Your task to perform on an android device: create a new album in the google photos Image 0: 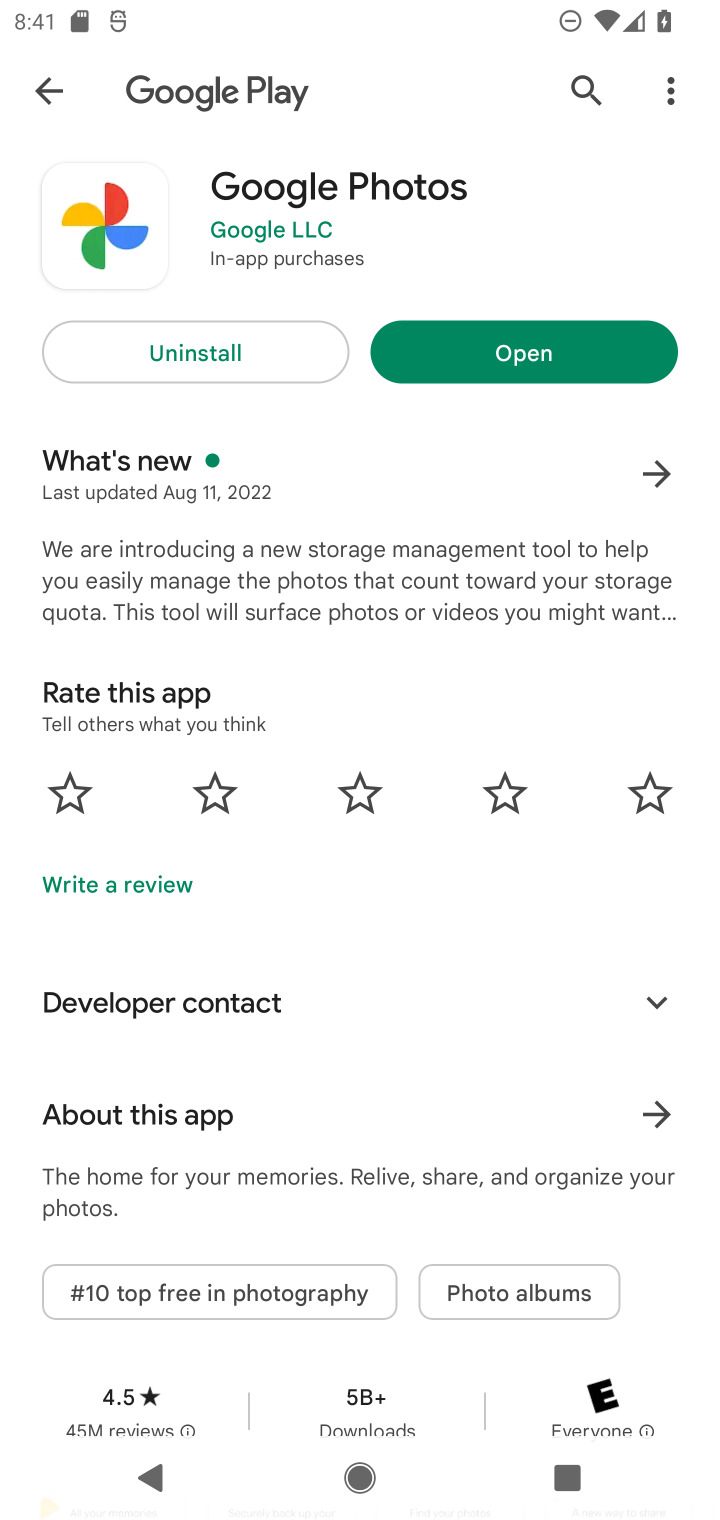
Step 0: press home button
Your task to perform on an android device: create a new album in the google photos Image 1: 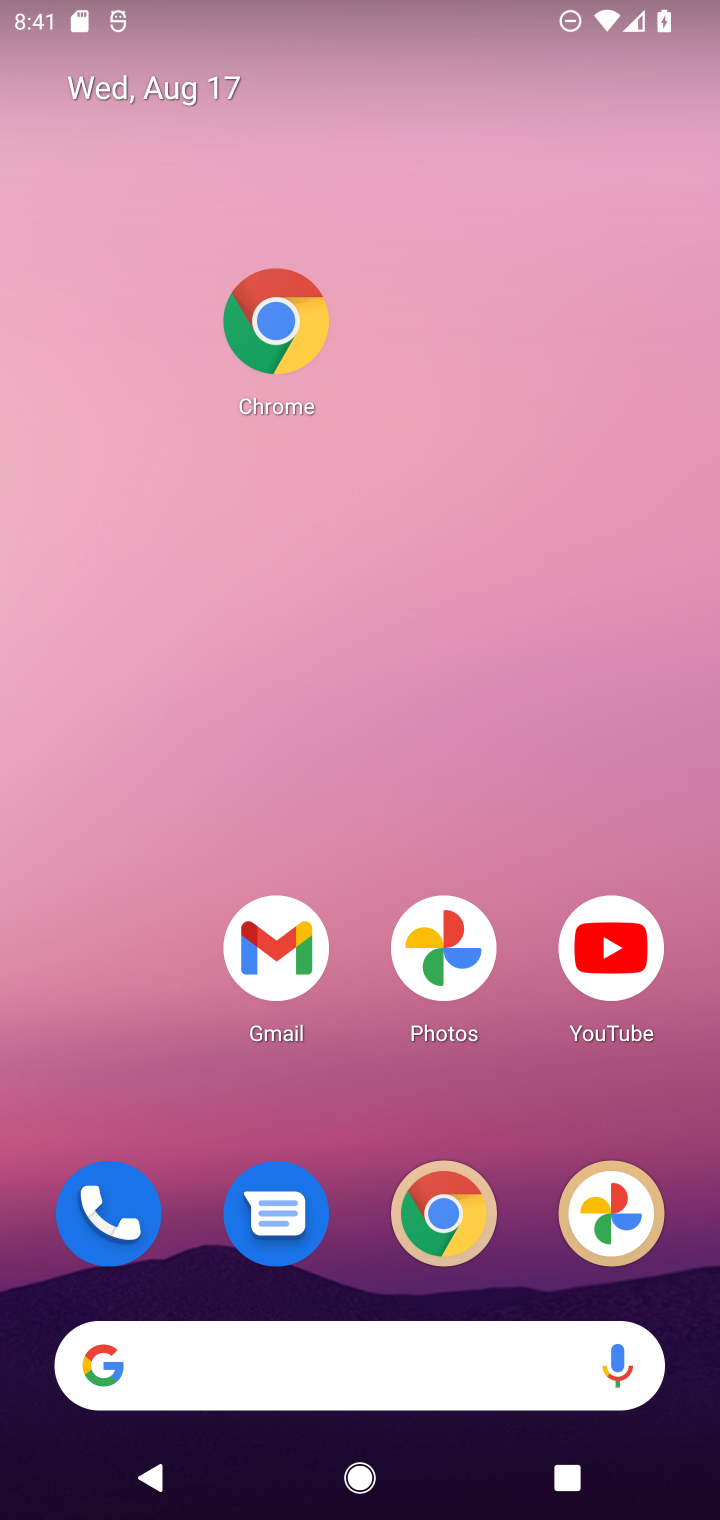
Step 1: click (601, 1208)
Your task to perform on an android device: create a new album in the google photos Image 2: 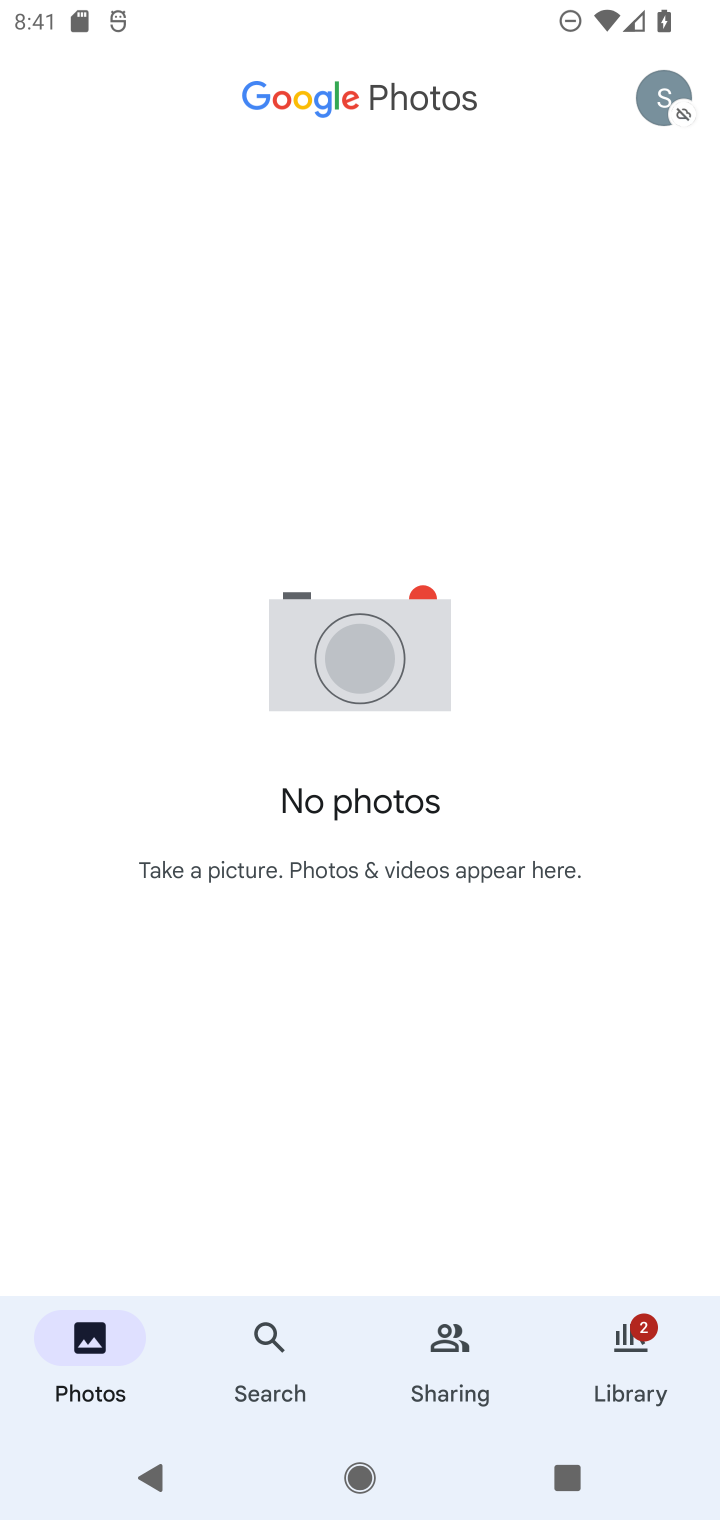
Step 2: click (610, 1321)
Your task to perform on an android device: create a new album in the google photos Image 3: 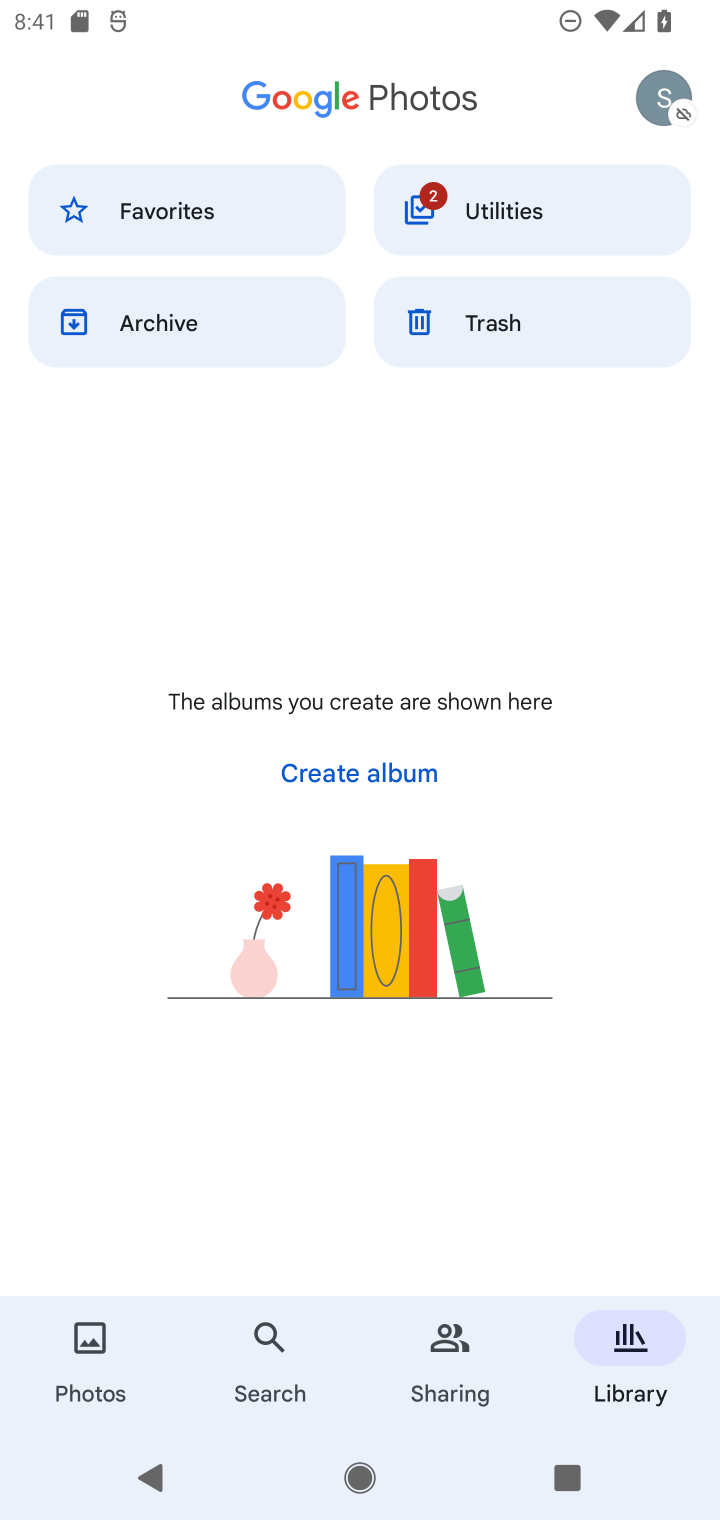
Step 3: click (466, 234)
Your task to perform on an android device: create a new album in the google photos Image 4: 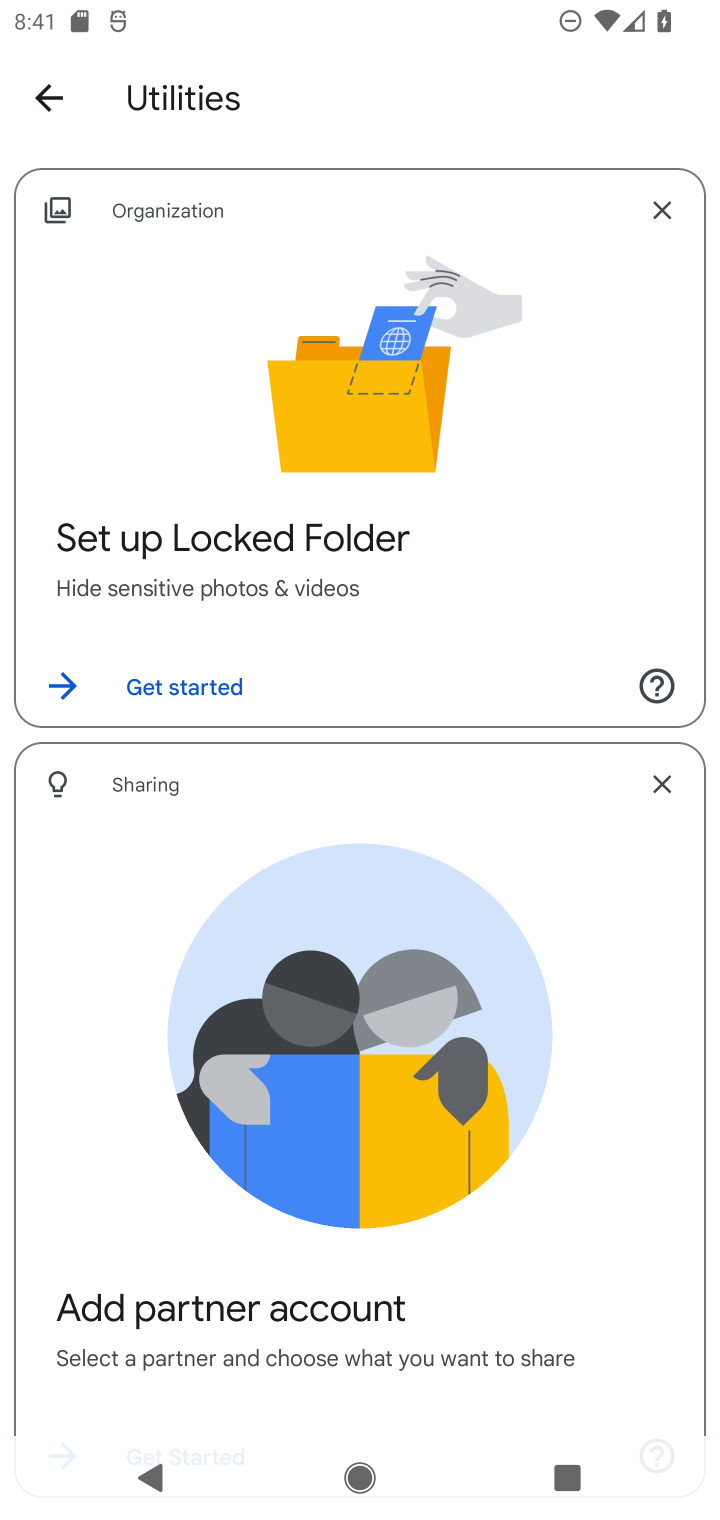
Step 4: click (37, 90)
Your task to perform on an android device: create a new album in the google photos Image 5: 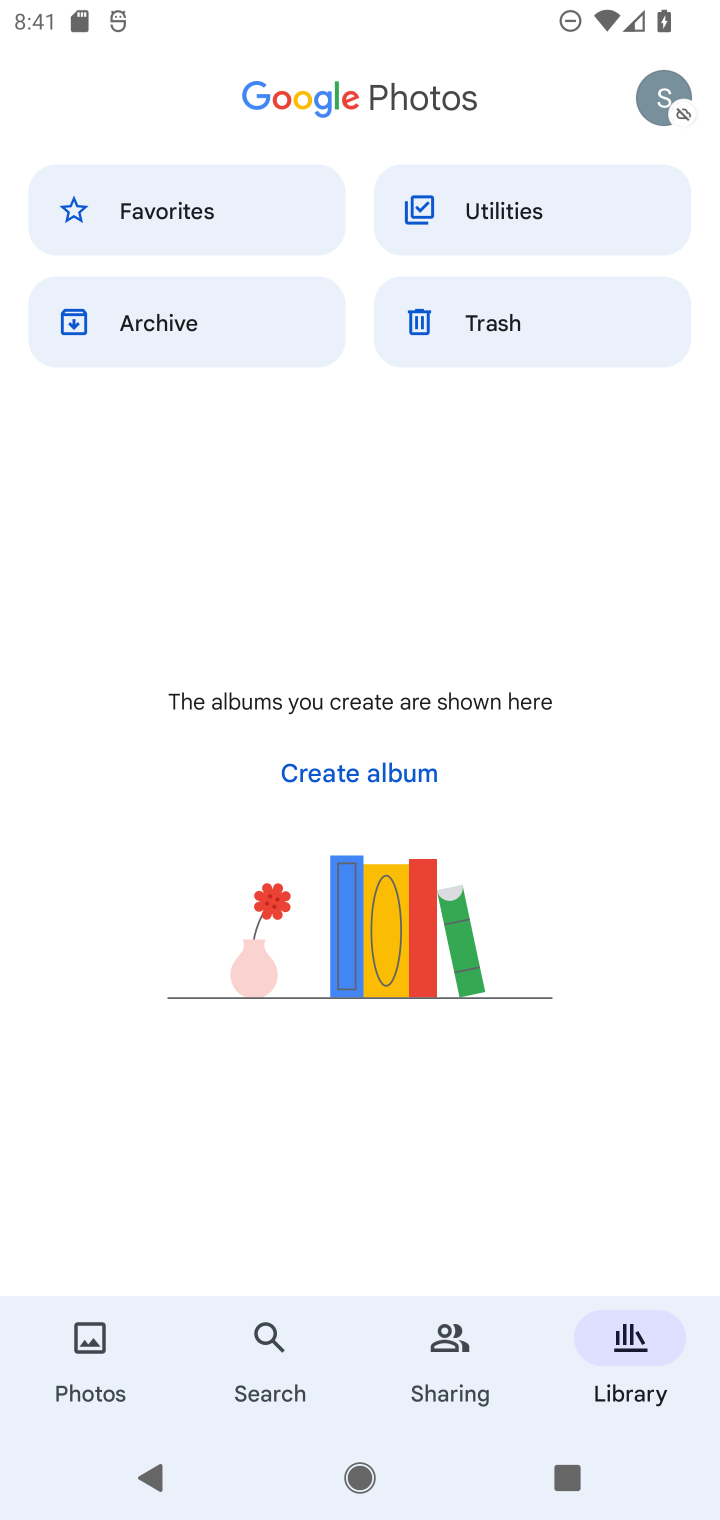
Step 5: click (351, 762)
Your task to perform on an android device: create a new album in the google photos Image 6: 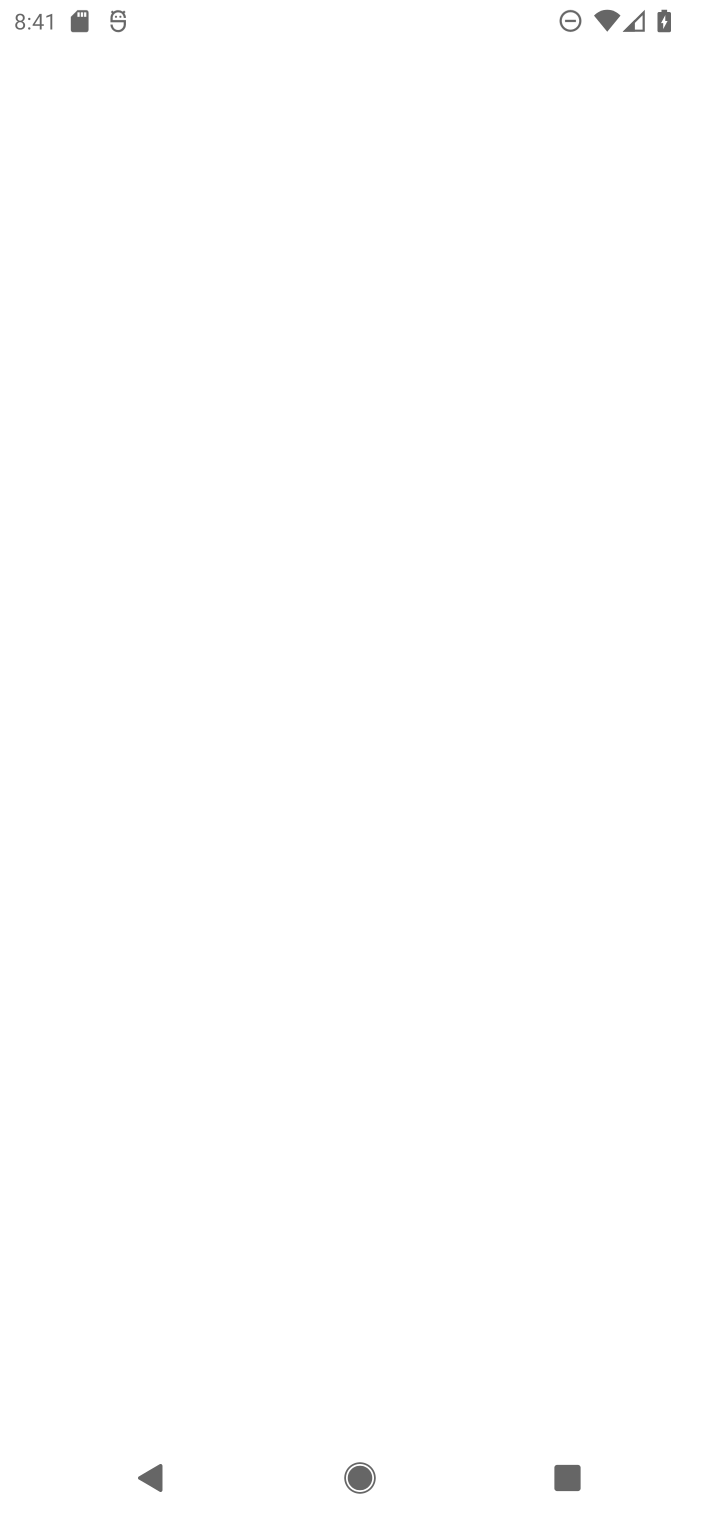
Step 6: click (358, 777)
Your task to perform on an android device: create a new album in the google photos Image 7: 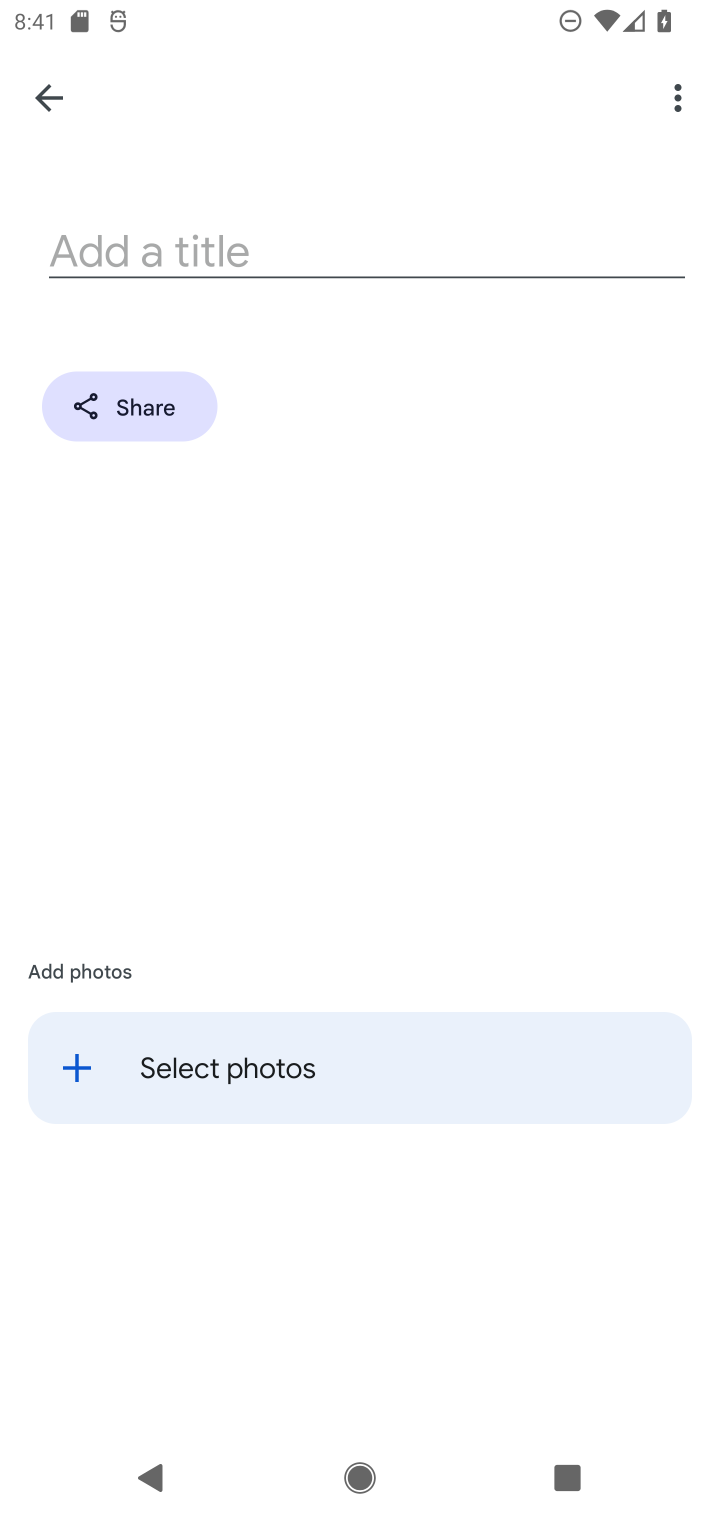
Step 7: click (336, 251)
Your task to perform on an android device: create a new album in the google photos Image 8: 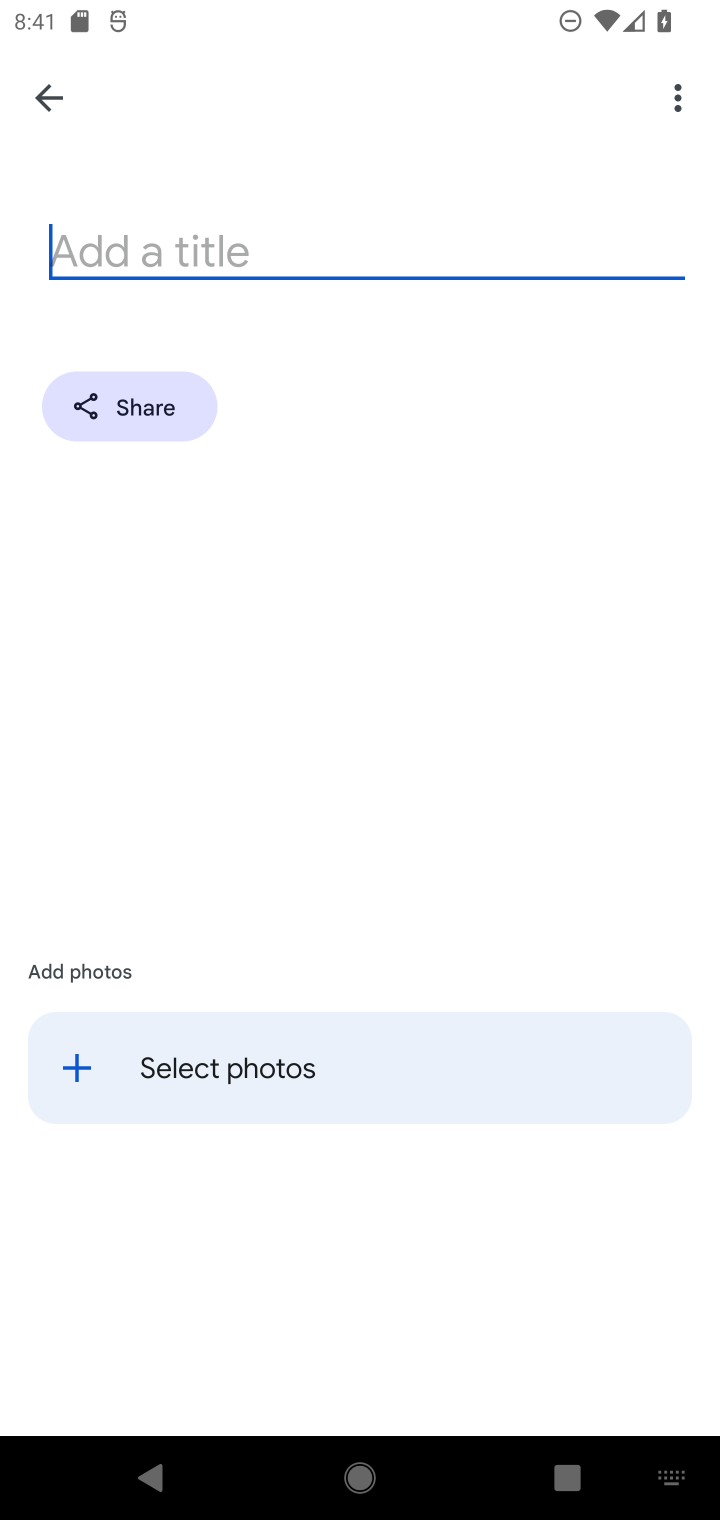
Step 8: type "dfsdg"
Your task to perform on an android device: create a new album in the google photos Image 9: 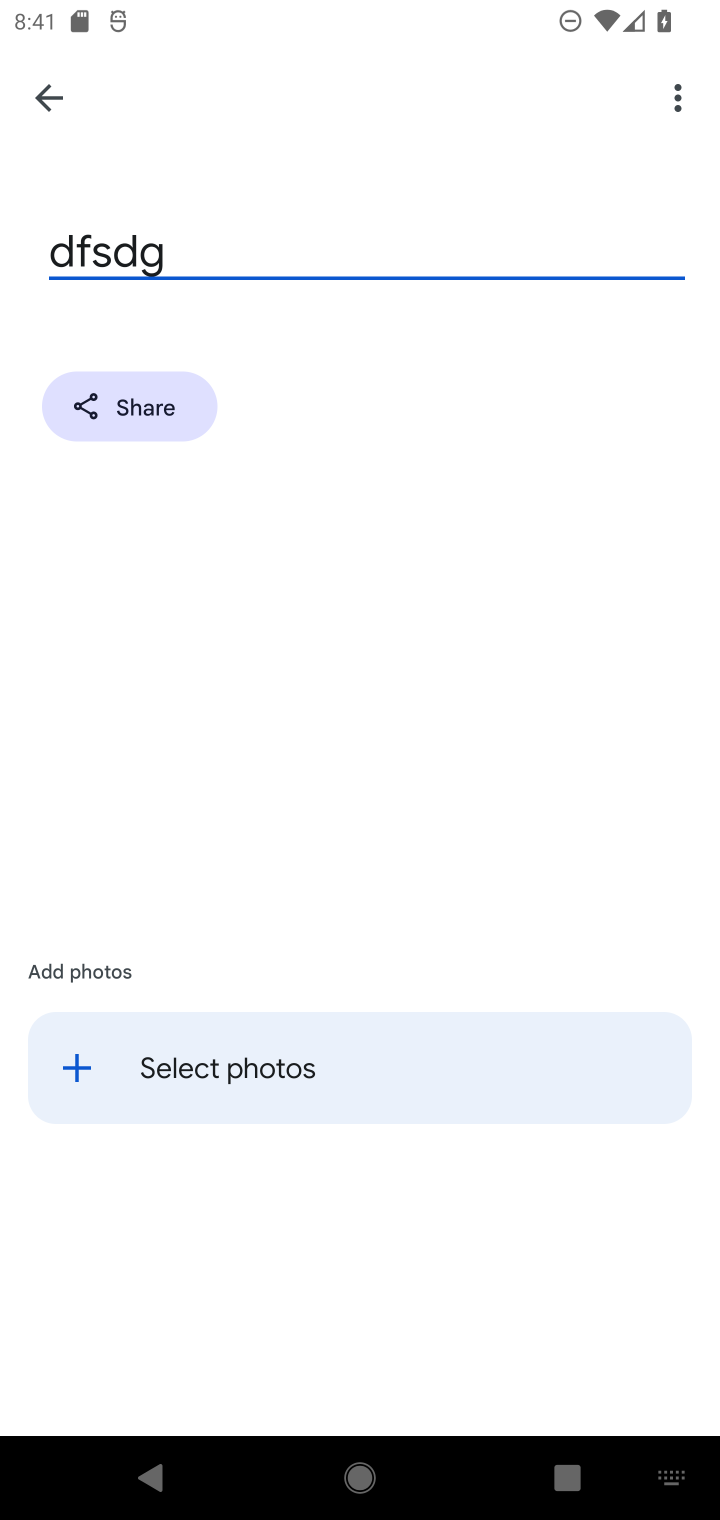
Step 9: click (458, 1041)
Your task to perform on an android device: create a new album in the google photos Image 10: 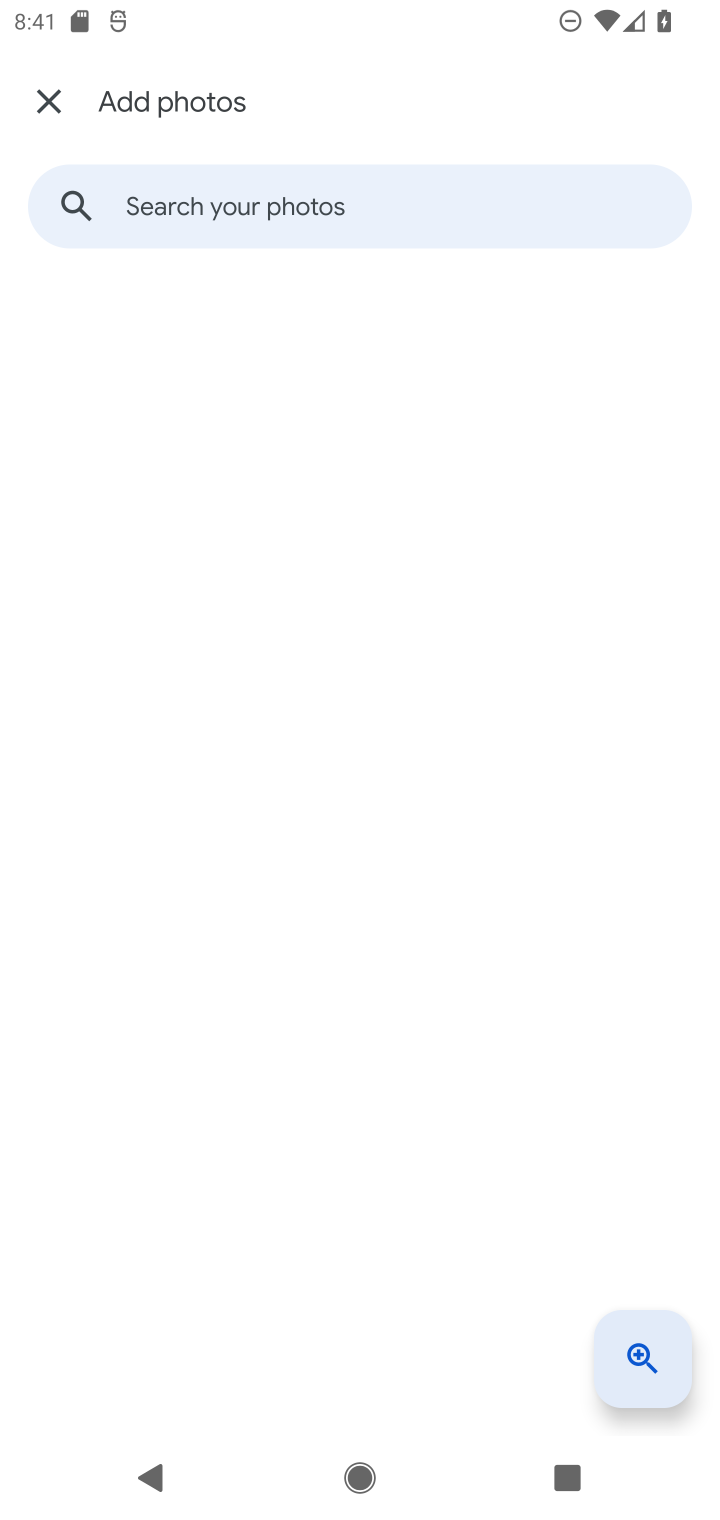
Step 10: click (36, 129)
Your task to perform on an android device: create a new album in the google photos Image 11: 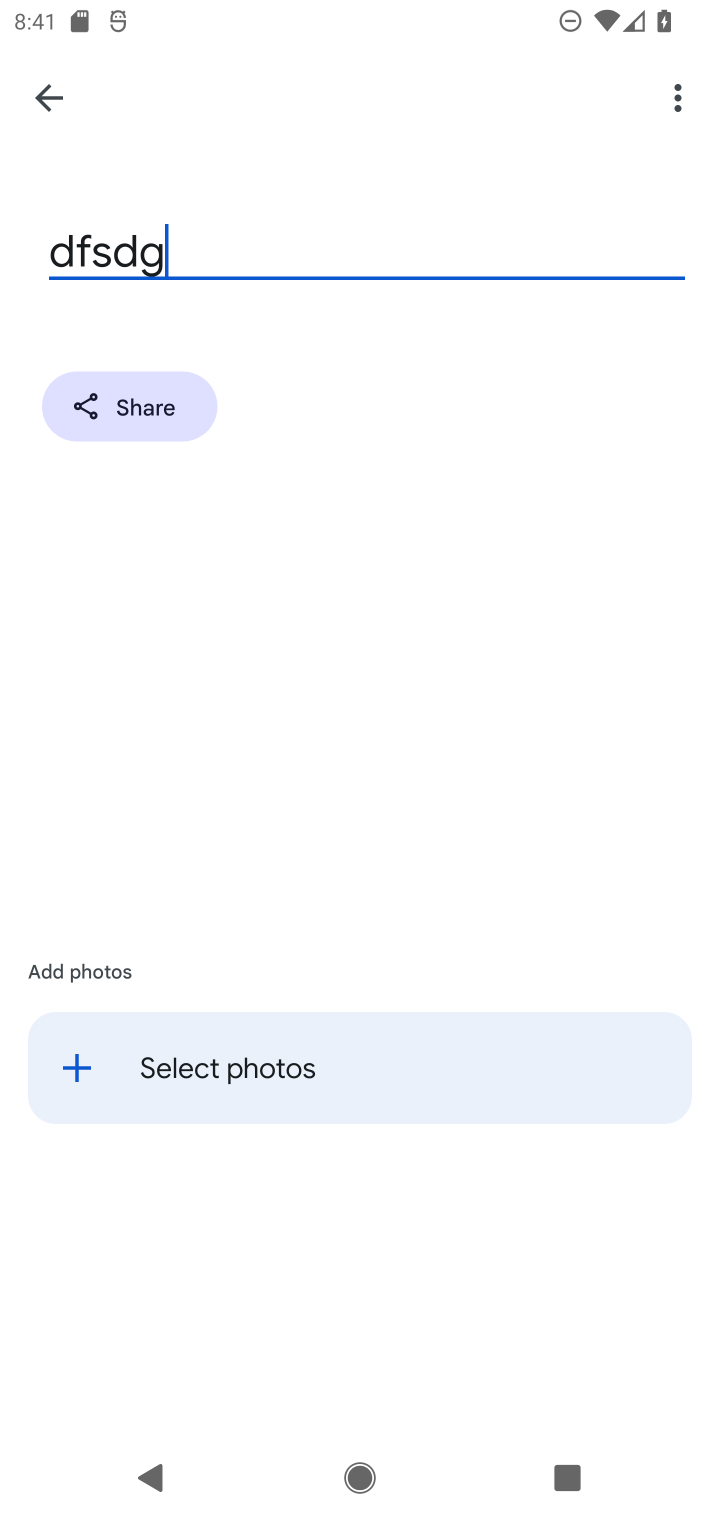
Step 11: click (695, 94)
Your task to perform on an android device: create a new album in the google photos Image 12: 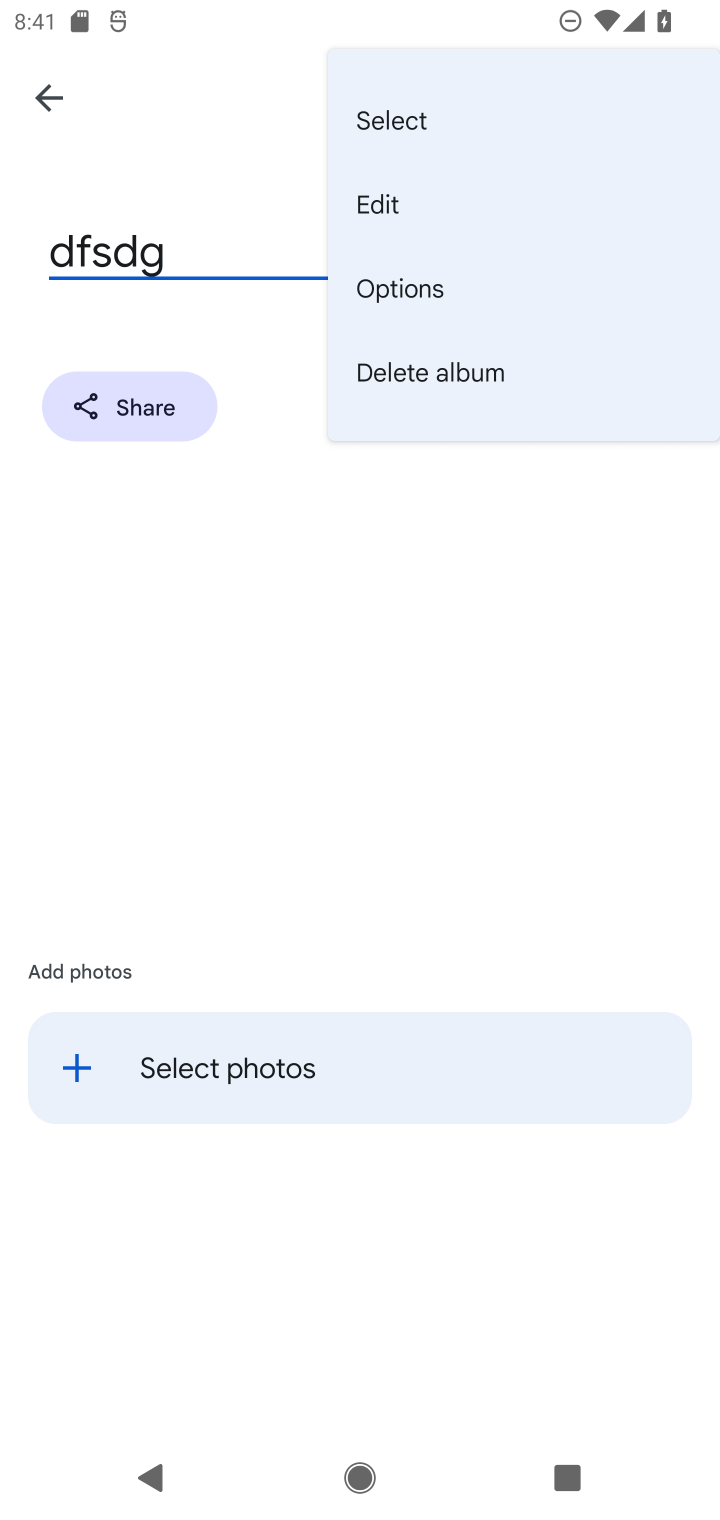
Step 12: task complete